Your task to perform on an android device: turn on bluetooth scan Image 0: 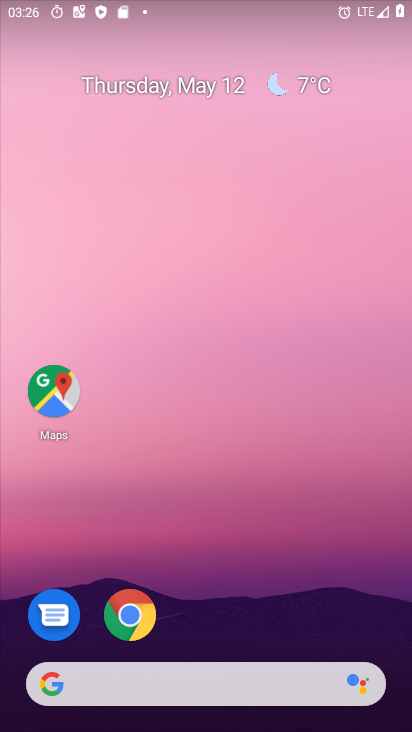
Step 0: drag from (210, 679) to (171, 92)
Your task to perform on an android device: turn on bluetooth scan Image 1: 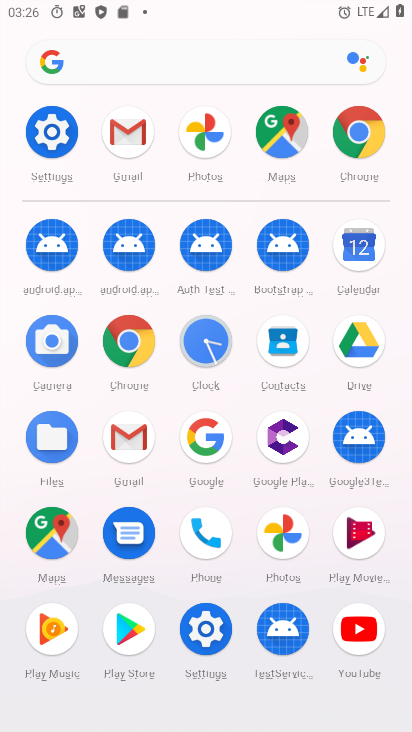
Step 1: click (58, 145)
Your task to perform on an android device: turn on bluetooth scan Image 2: 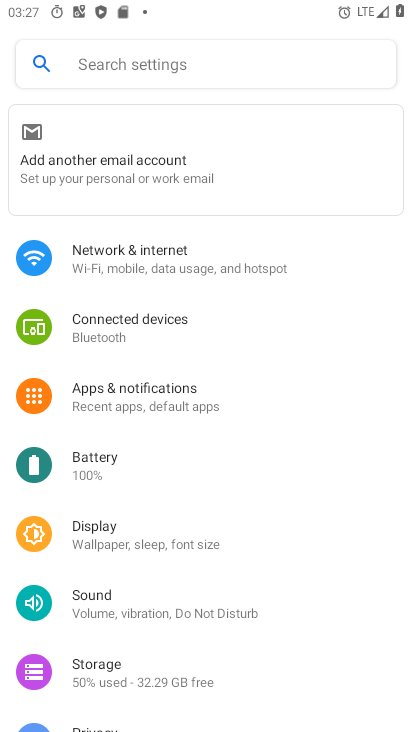
Step 2: drag from (173, 581) to (200, 28)
Your task to perform on an android device: turn on bluetooth scan Image 3: 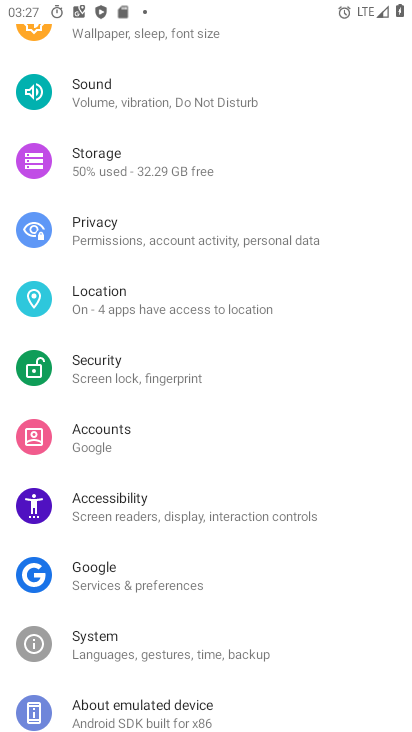
Step 3: click (113, 307)
Your task to perform on an android device: turn on bluetooth scan Image 4: 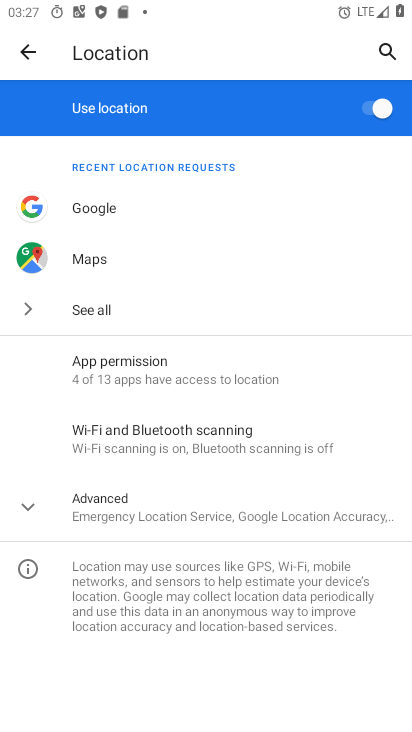
Step 4: click (141, 505)
Your task to perform on an android device: turn on bluetooth scan Image 5: 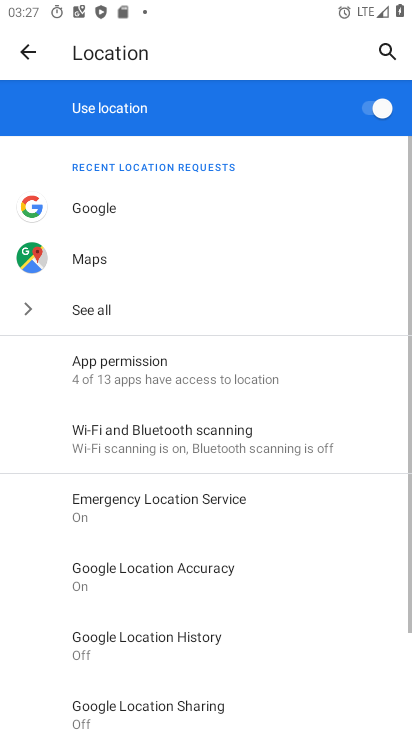
Step 5: click (135, 444)
Your task to perform on an android device: turn on bluetooth scan Image 6: 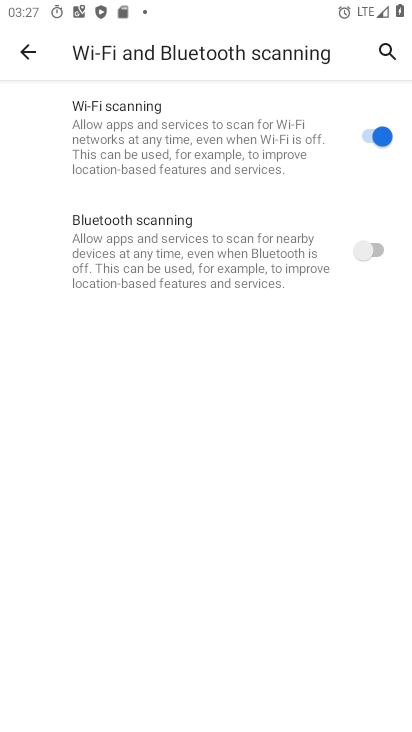
Step 6: click (367, 256)
Your task to perform on an android device: turn on bluetooth scan Image 7: 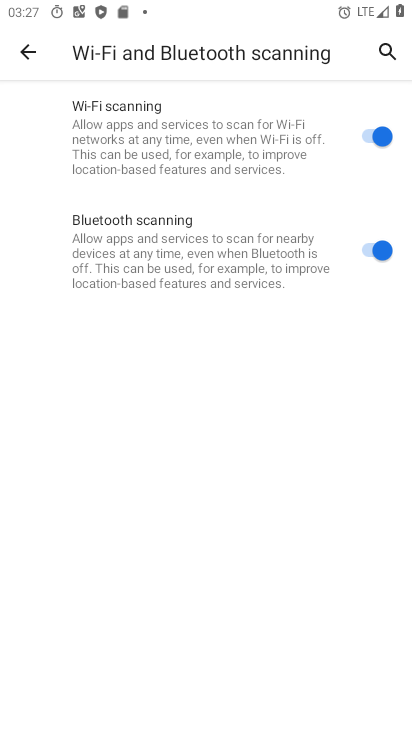
Step 7: task complete